Your task to perform on an android device: Open Reddit.com Image 0: 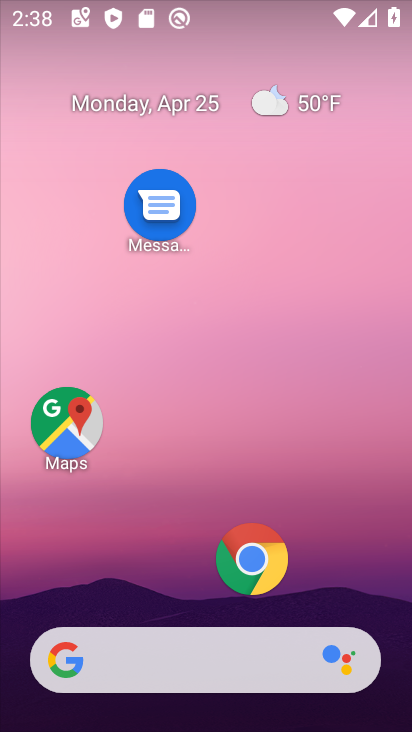
Step 0: click (263, 565)
Your task to perform on an android device: Open Reddit.com Image 1: 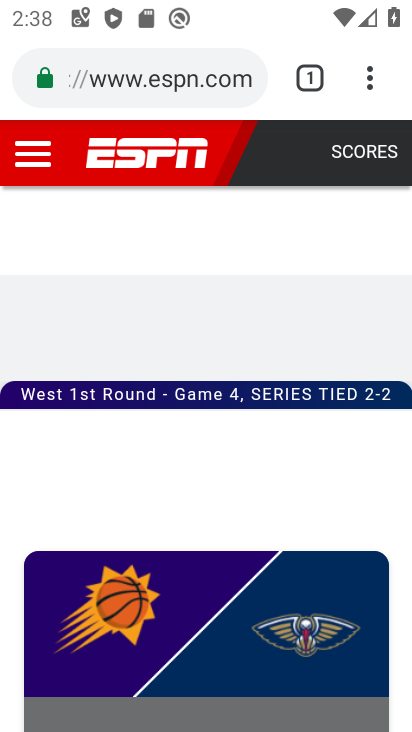
Step 1: click (186, 82)
Your task to perform on an android device: Open Reddit.com Image 2: 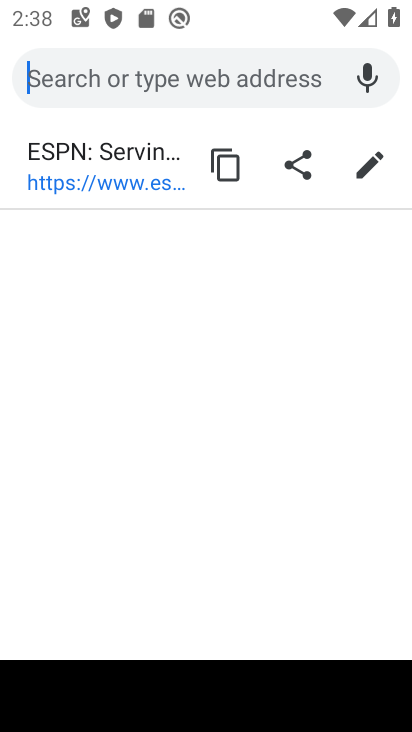
Step 2: type "reddit.com"
Your task to perform on an android device: Open Reddit.com Image 3: 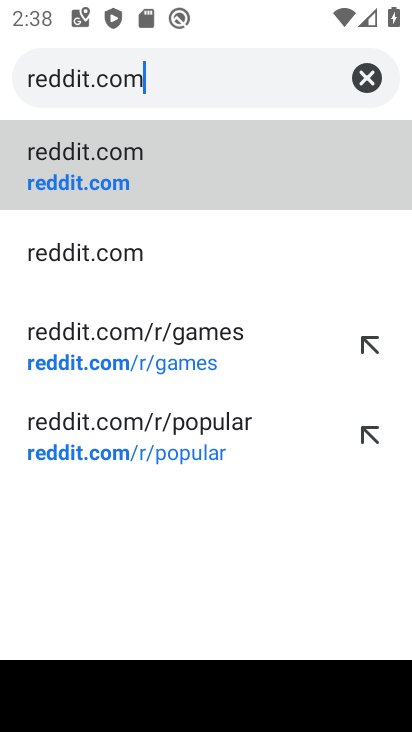
Step 3: click (185, 174)
Your task to perform on an android device: Open Reddit.com Image 4: 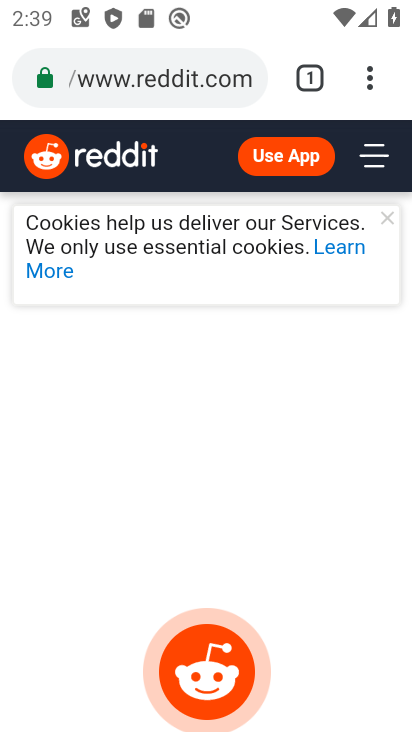
Step 4: task complete